Your task to perform on an android device: manage bookmarks in the chrome app Image 0: 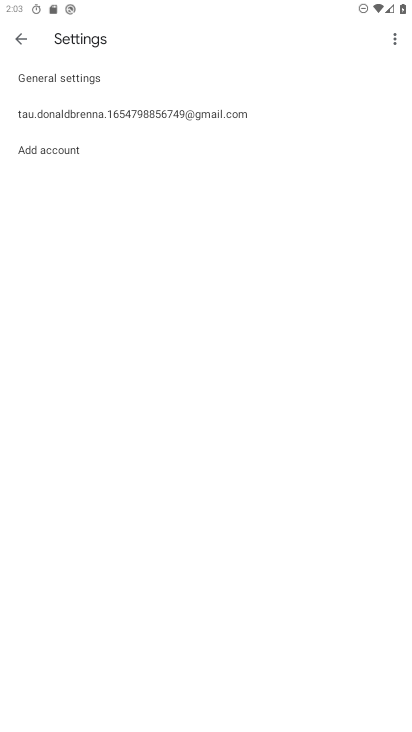
Step 0: press home button
Your task to perform on an android device: manage bookmarks in the chrome app Image 1: 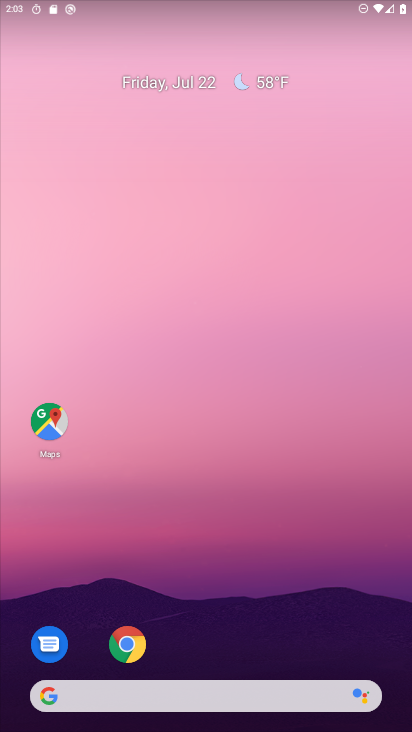
Step 1: click (127, 652)
Your task to perform on an android device: manage bookmarks in the chrome app Image 2: 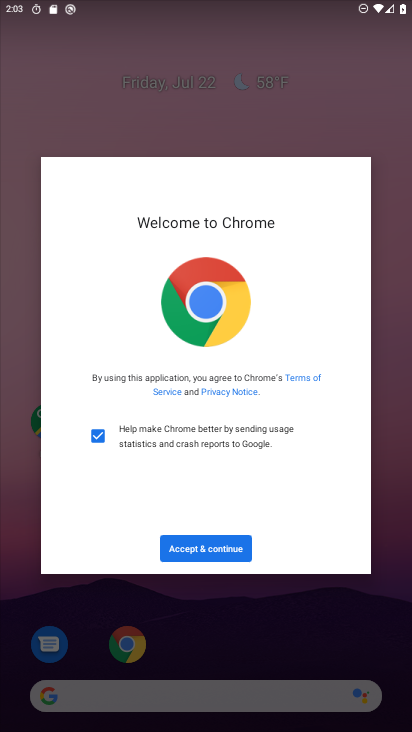
Step 2: click (219, 547)
Your task to perform on an android device: manage bookmarks in the chrome app Image 3: 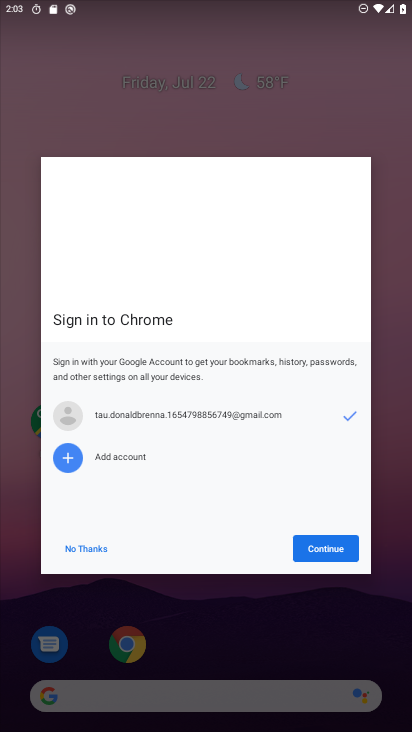
Step 3: click (314, 551)
Your task to perform on an android device: manage bookmarks in the chrome app Image 4: 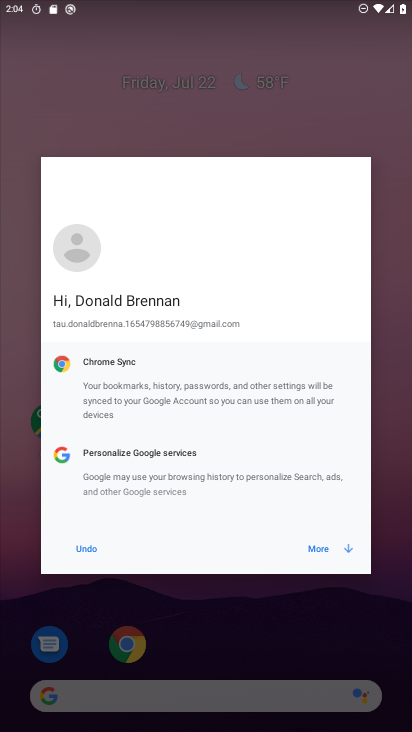
Step 4: click (325, 550)
Your task to perform on an android device: manage bookmarks in the chrome app Image 5: 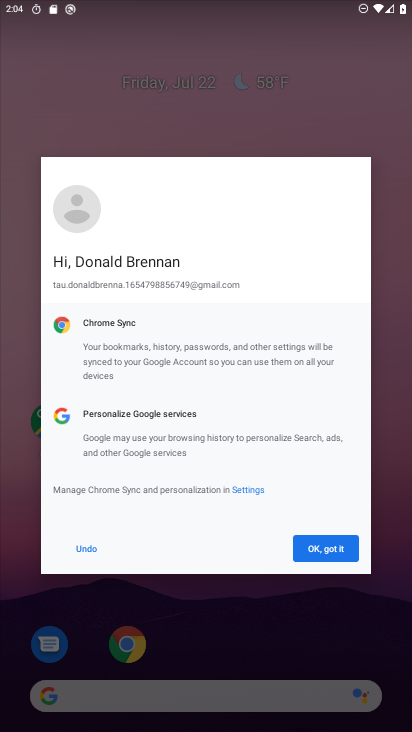
Step 5: click (325, 550)
Your task to perform on an android device: manage bookmarks in the chrome app Image 6: 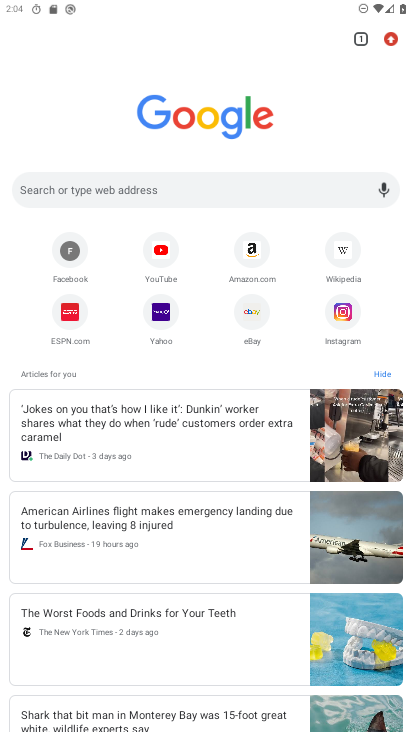
Step 6: click (385, 43)
Your task to perform on an android device: manage bookmarks in the chrome app Image 7: 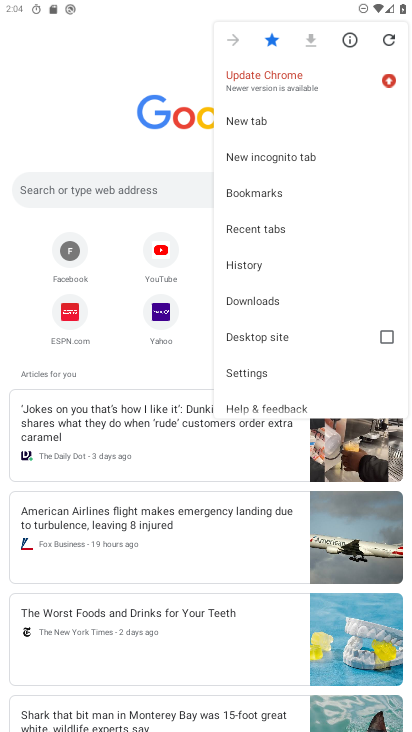
Step 7: click (262, 198)
Your task to perform on an android device: manage bookmarks in the chrome app Image 8: 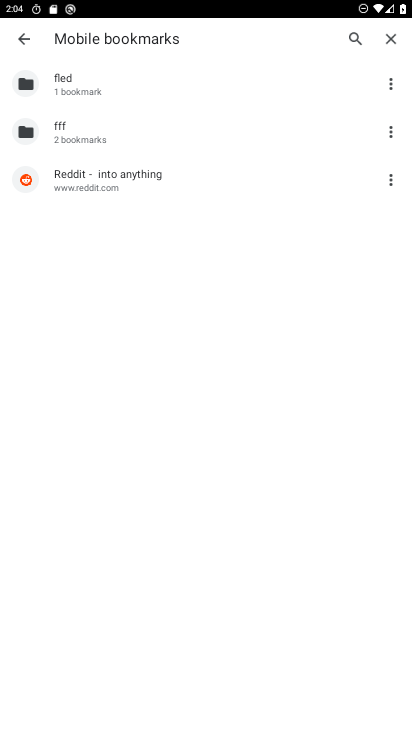
Step 8: click (389, 174)
Your task to perform on an android device: manage bookmarks in the chrome app Image 9: 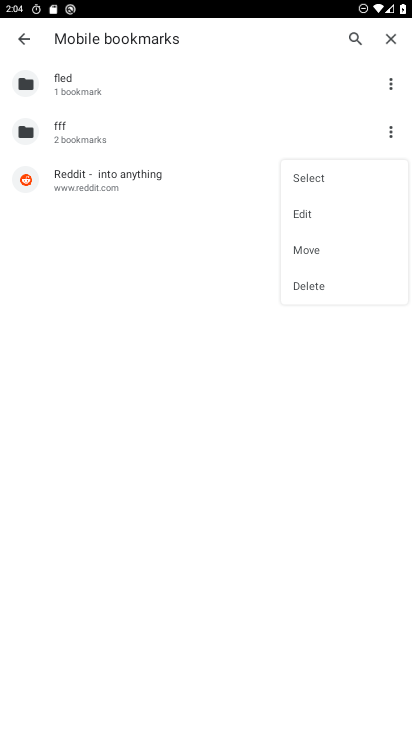
Step 9: click (316, 277)
Your task to perform on an android device: manage bookmarks in the chrome app Image 10: 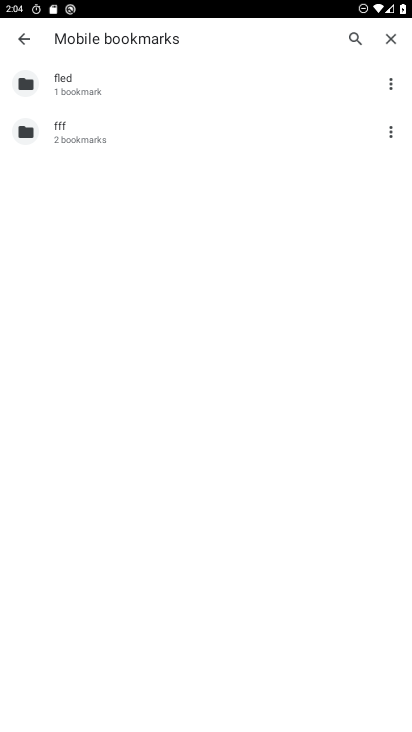
Step 10: task complete